Your task to perform on an android device: delete browsing data in the chrome app Image 0: 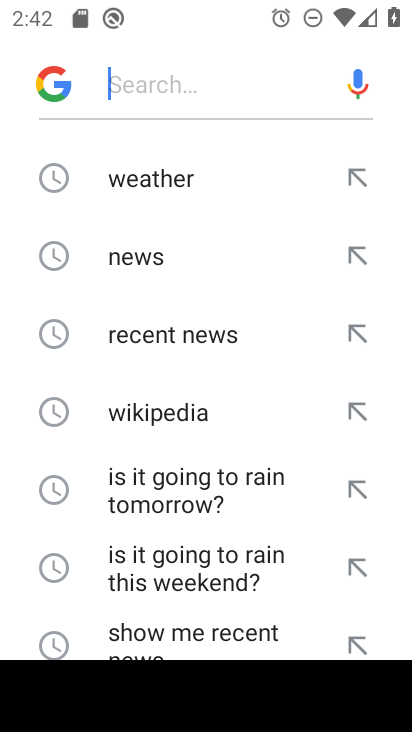
Step 0: press home button
Your task to perform on an android device: delete browsing data in the chrome app Image 1: 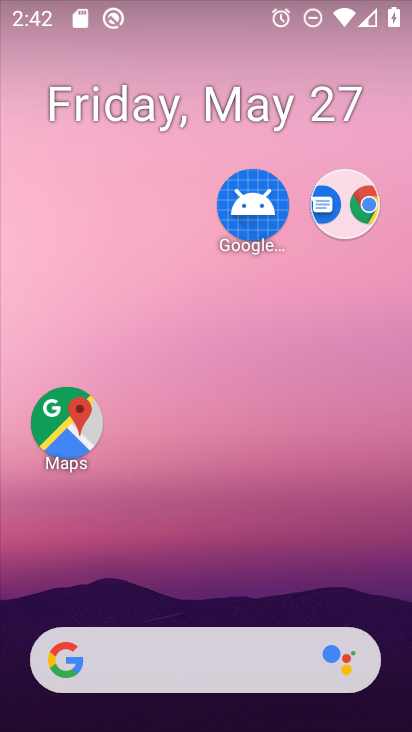
Step 1: drag from (204, 597) to (299, 180)
Your task to perform on an android device: delete browsing data in the chrome app Image 2: 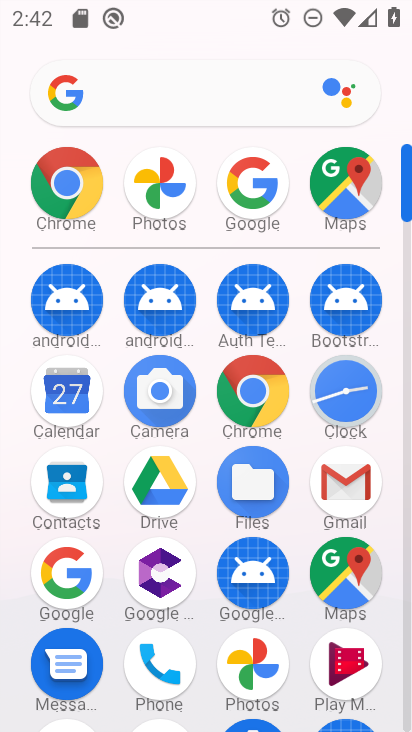
Step 2: click (259, 399)
Your task to perform on an android device: delete browsing data in the chrome app Image 3: 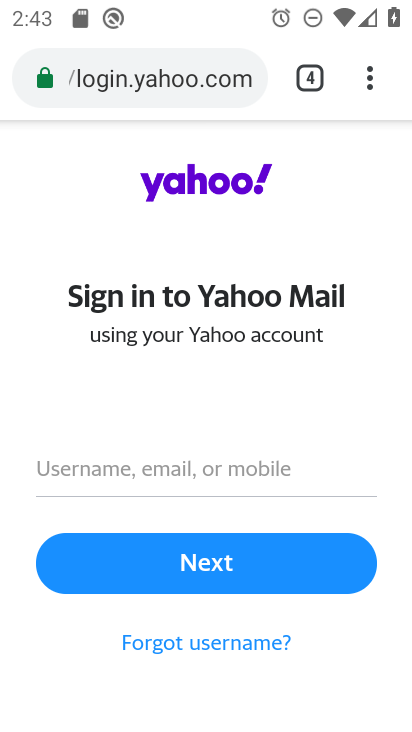
Step 3: click (366, 78)
Your task to perform on an android device: delete browsing data in the chrome app Image 4: 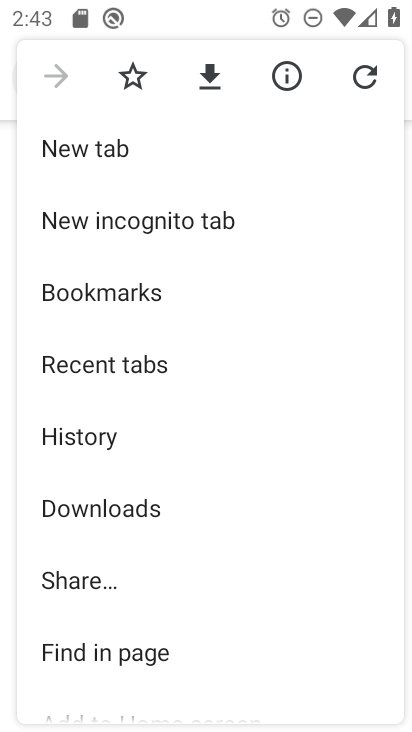
Step 4: drag from (149, 482) to (208, 293)
Your task to perform on an android device: delete browsing data in the chrome app Image 5: 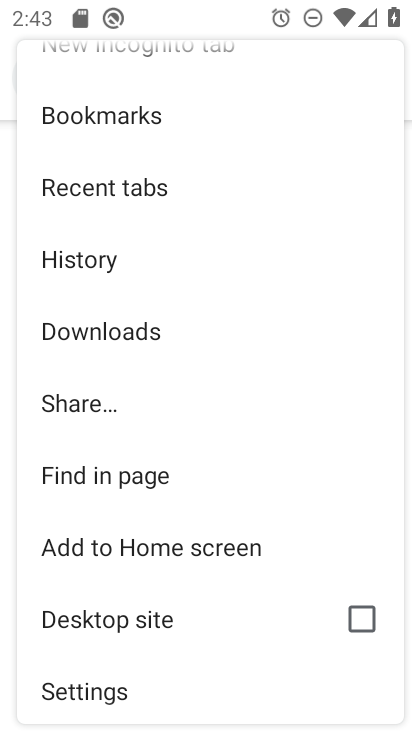
Step 5: click (101, 260)
Your task to perform on an android device: delete browsing data in the chrome app Image 6: 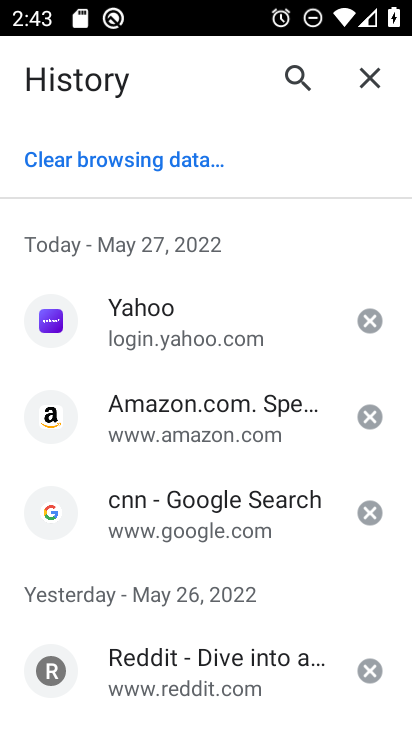
Step 6: click (140, 161)
Your task to perform on an android device: delete browsing data in the chrome app Image 7: 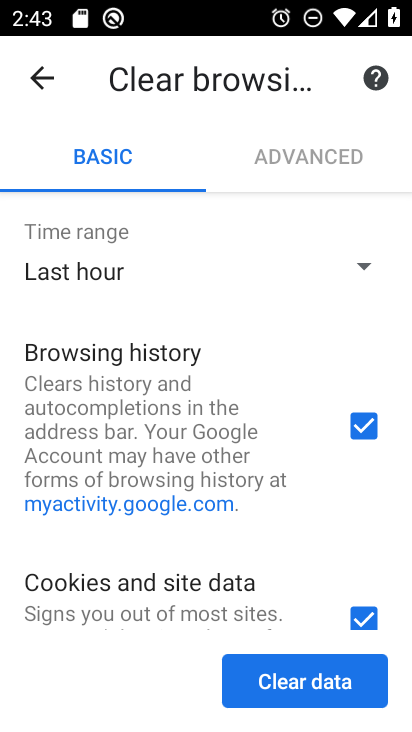
Step 7: click (276, 680)
Your task to perform on an android device: delete browsing data in the chrome app Image 8: 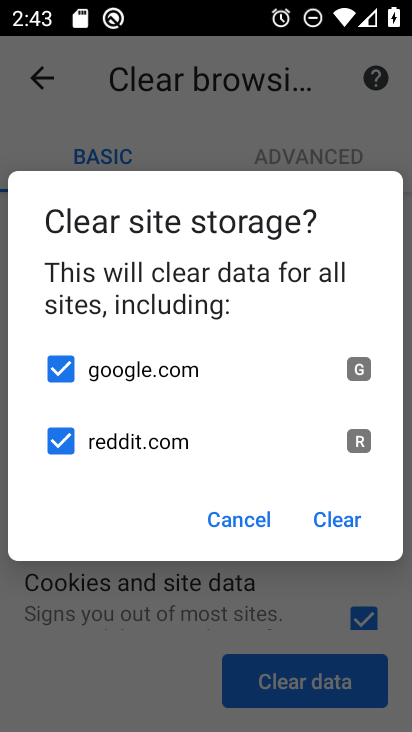
Step 8: click (347, 520)
Your task to perform on an android device: delete browsing data in the chrome app Image 9: 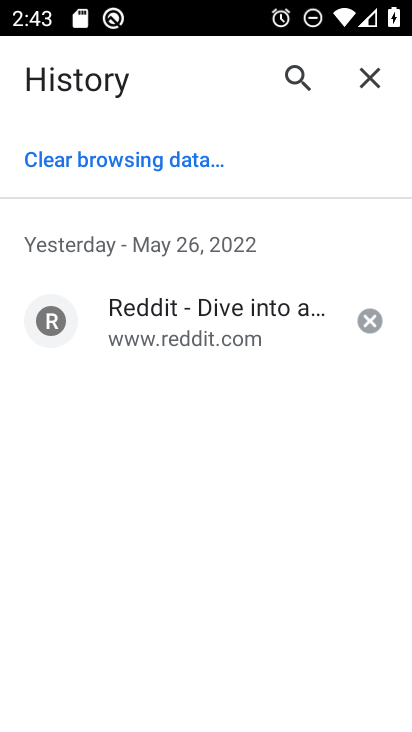
Step 9: task complete